Your task to perform on an android device: Open wifi settings Image 0: 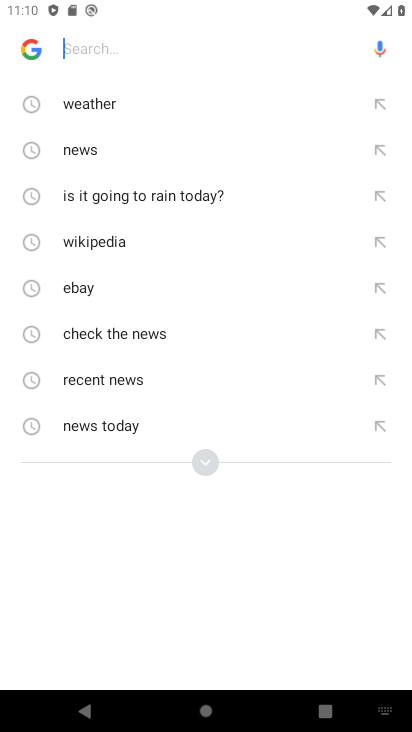
Step 0: press home button
Your task to perform on an android device: Open wifi settings Image 1: 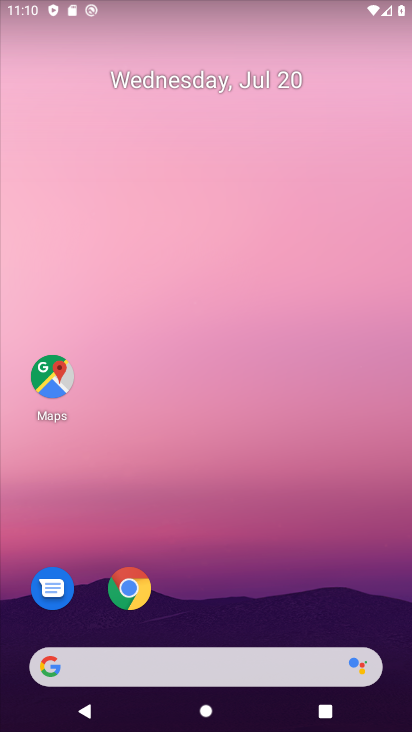
Step 1: drag from (238, 528) to (406, 108)
Your task to perform on an android device: Open wifi settings Image 2: 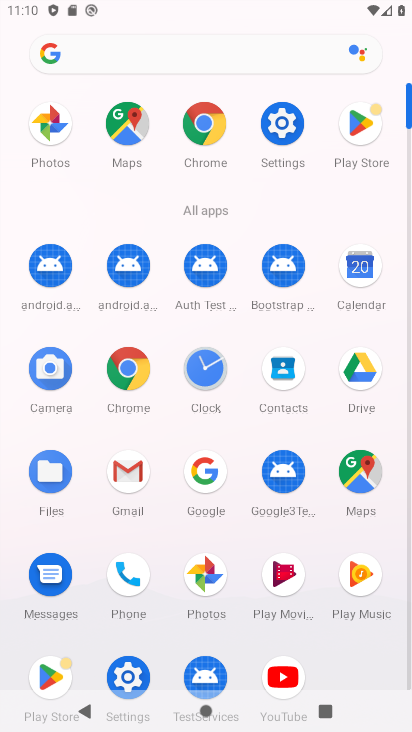
Step 2: click (293, 129)
Your task to perform on an android device: Open wifi settings Image 3: 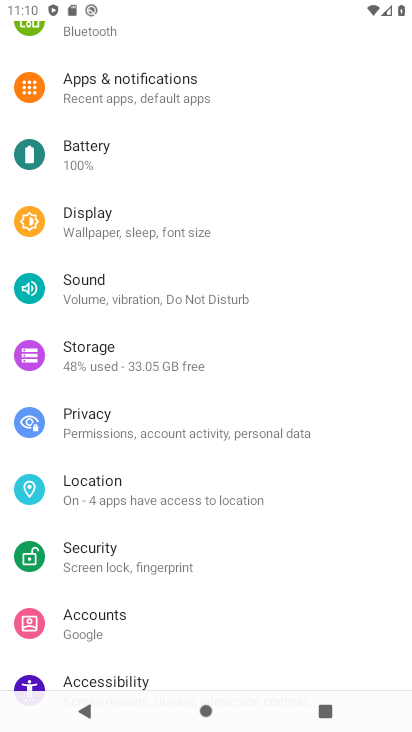
Step 3: drag from (237, 37) to (250, 396)
Your task to perform on an android device: Open wifi settings Image 4: 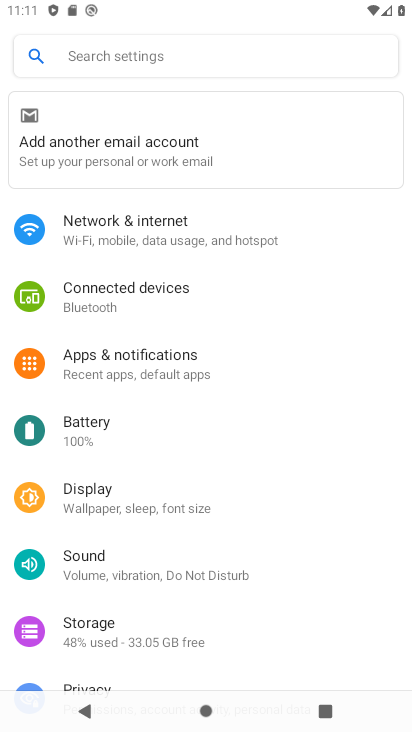
Step 4: click (170, 229)
Your task to perform on an android device: Open wifi settings Image 5: 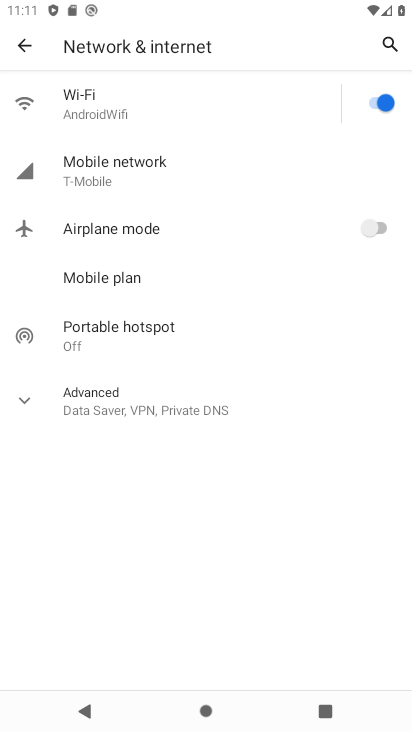
Step 5: task complete